Your task to perform on an android device: toggle wifi Image 0: 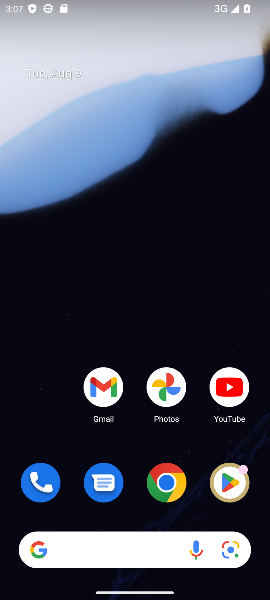
Step 0: drag from (136, 443) to (142, 125)
Your task to perform on an android device: toggle wifi Image 1: 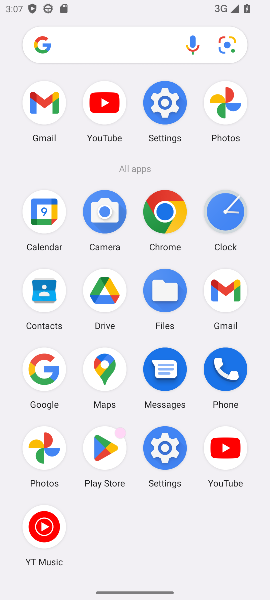
Step 1: click (164, 106)
Your task to perform on an android device: toggle wifi Image 2: 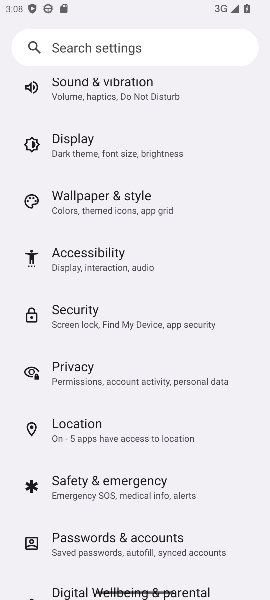
Step 2: drag from (145, 177) to (158, 439)
Your task to perform on an android device: toggle wifi Image 3: 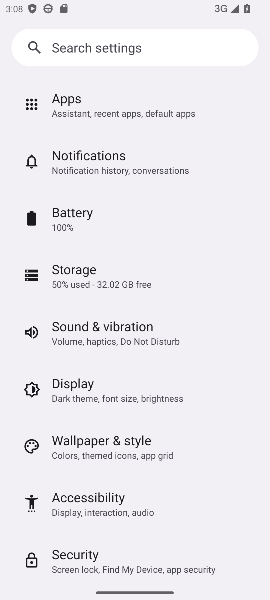
Step 3: drag from (102, 148) to (103, 389)
Your task to perform on an android device: toggle wifi Image 4: 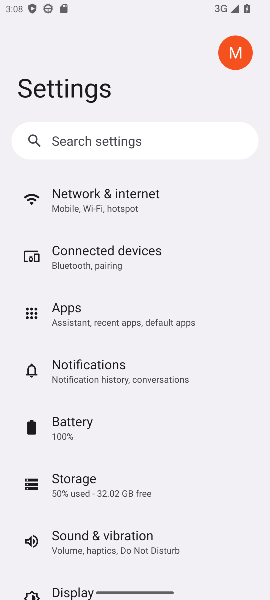
Step 4: click (66, 210)
Your task to perform on an android device: toggle wifi Image 5: 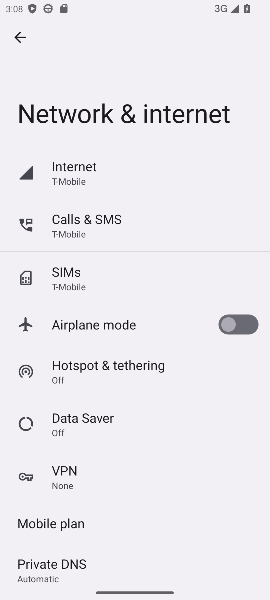
Step 5: click (103, 184)
Your task to perform on an android device: toggle wifi Image 6: 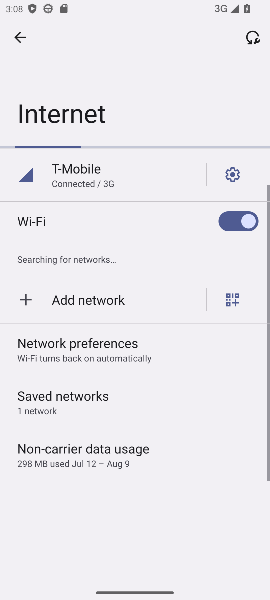
Step 6: click (225, 217)
Your task to perform on an android device: toggle wifi Image 7: 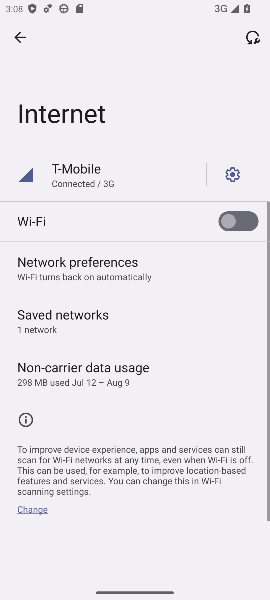
Step 7: task complete